Your task to perform on an android device: turn on javascript in the chrome app Image 0: 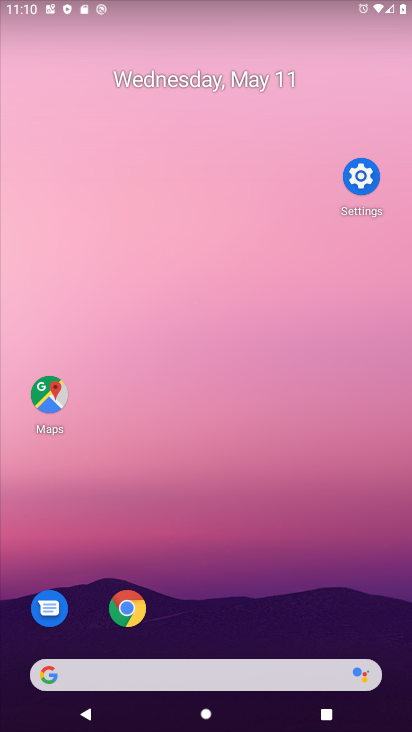
Step 0: drag from (310, 601) to (229, 11)
Your task to perform on an android device: turn on javascript in the chrome app Image 1: 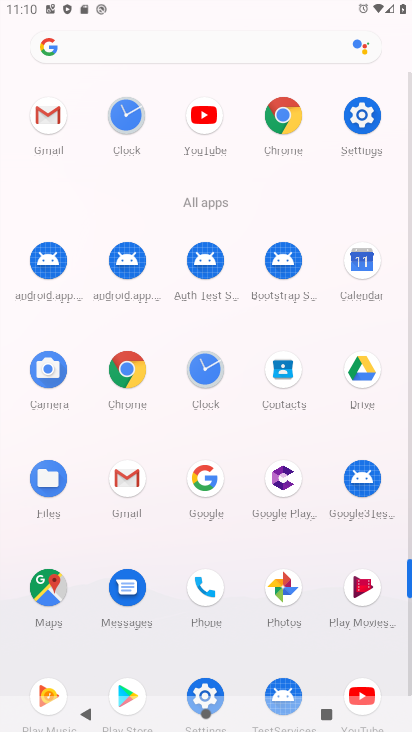
Step 1: click (280, 119)
Your task to perform on an android device: turn on javascript in the chrome app Image 2: 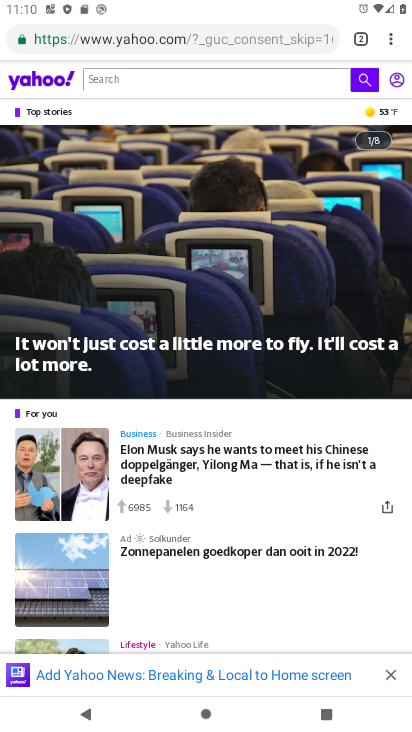
Step 2: drag from (385, 35) to (247, 478)
Your task to perform on an android device: turn on javascript in the chrome app Image 3: 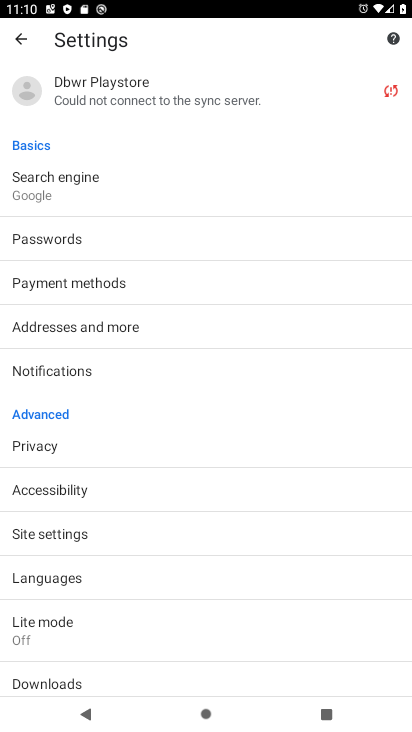
Step 3: click (59, 522)
Your task to perform on an android device: turn on javascript in the chrome app Image 4: 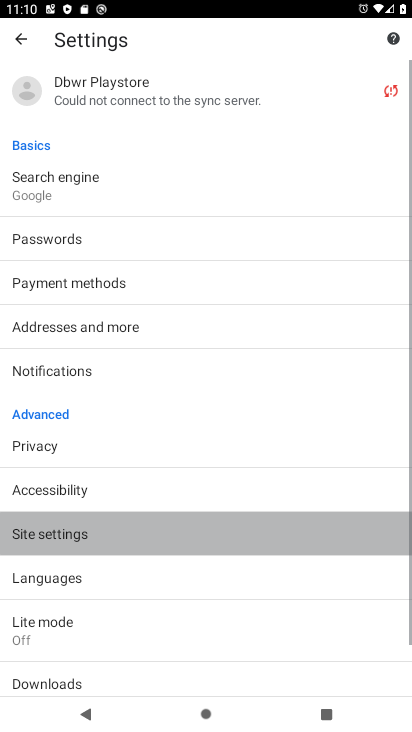
Step 4: click (59, 525)
Your task to perform on an android device: turn on javascript in the chrome app Image 5: 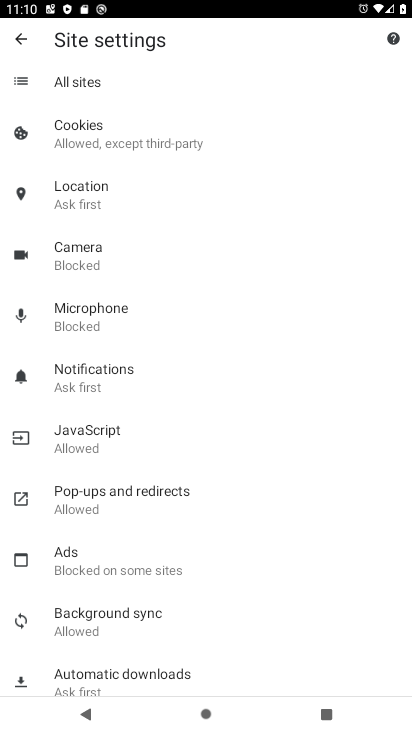
Step 5: click (79, 435)
Your task to perform on an android device: turn on javascript in the chrome app Image 6: 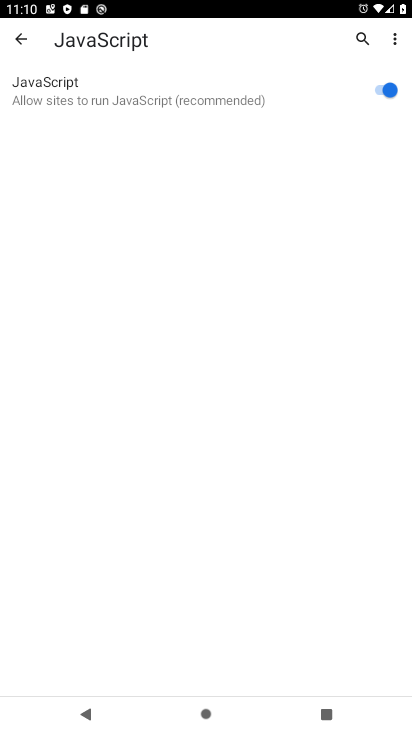
Step 6: task complete